Your task to perform on an android device: What's the weather going to be this weekend? Image 0: 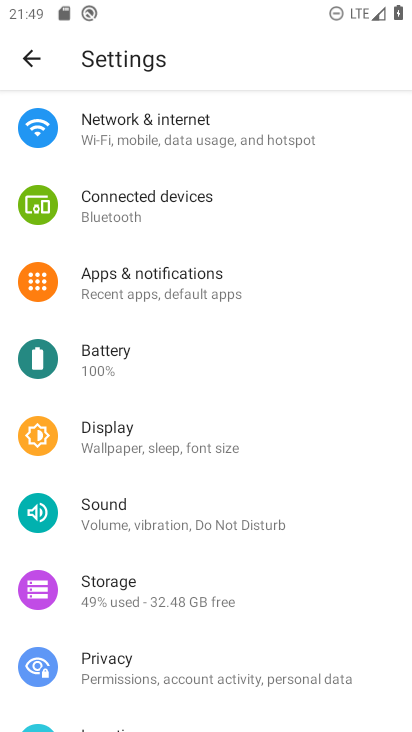
Step 0: press back button
Your task to perform on an android device: What's the weather going to be this weekend? Image 1: 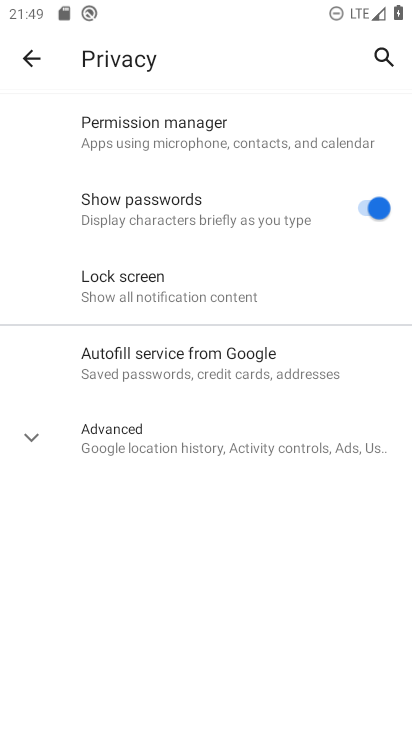
Step 1: press back button
Your task to perform on an android device: What's the weather going to be this weekend? Image 2: 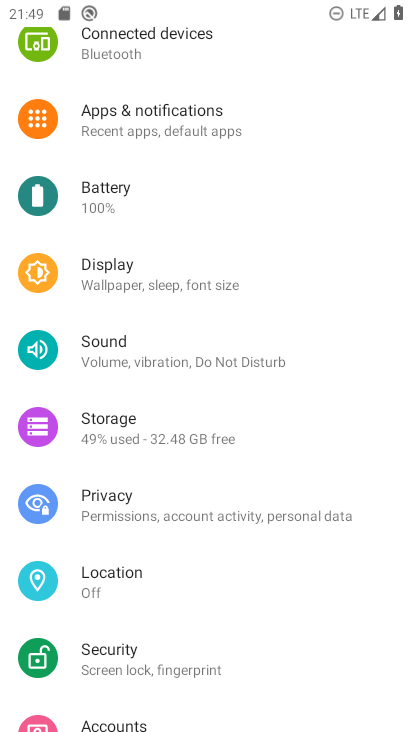
Step 2: press back button
Your task to perform on an android device: What's the weather going to be this weekend? Image 3: 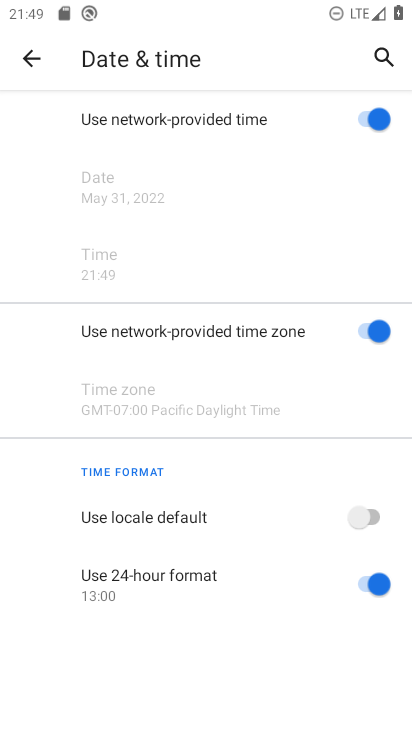
Step 3: press back button
Your task to perform on an android device: What's the weather going to be this weekend? Image 4: 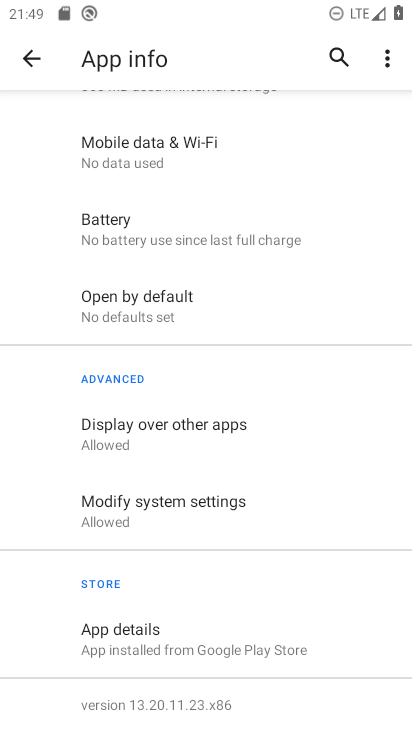
Step 4: press home button
Your task to perform on an android device: What's the weather going to be this weekend? Image 5: 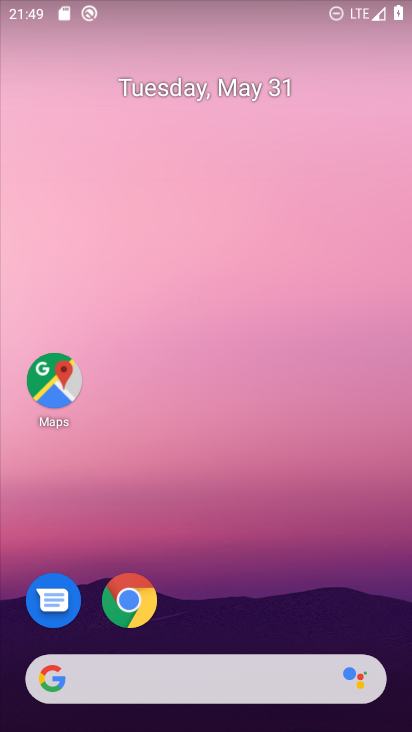
Step 5: click (132, 667)
Your task to perform on an android device: What's the weather going to be this weekend? Image 6: 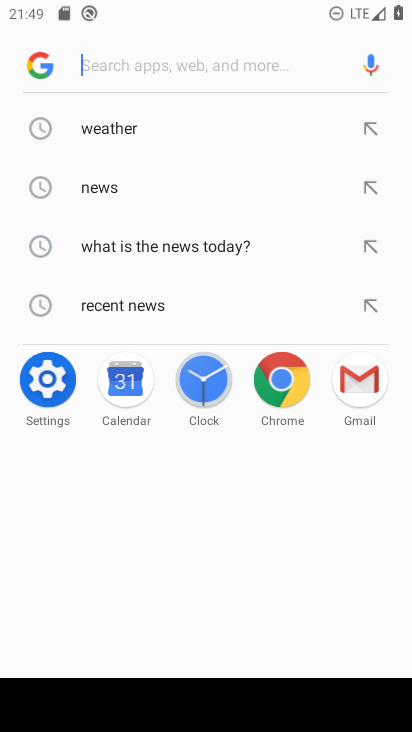
Step 6: click (119, 127)
Your task to perform on an android device: What's the weather going to be this weekend? Image 7: 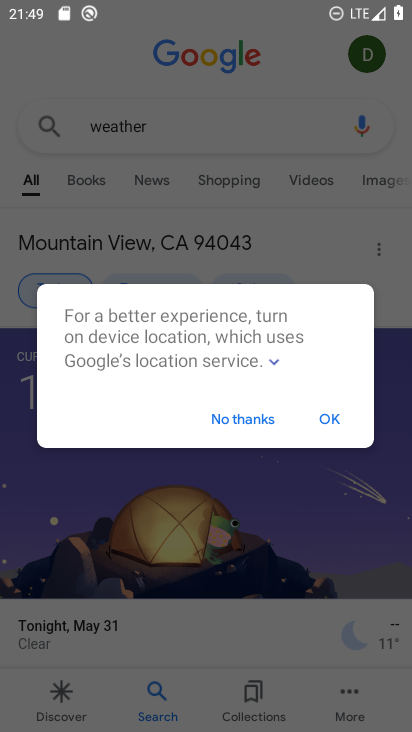
Step 7: click (208, 417)
Your task to perform on an android device: What's the weather going to be this weekend? Image 8: 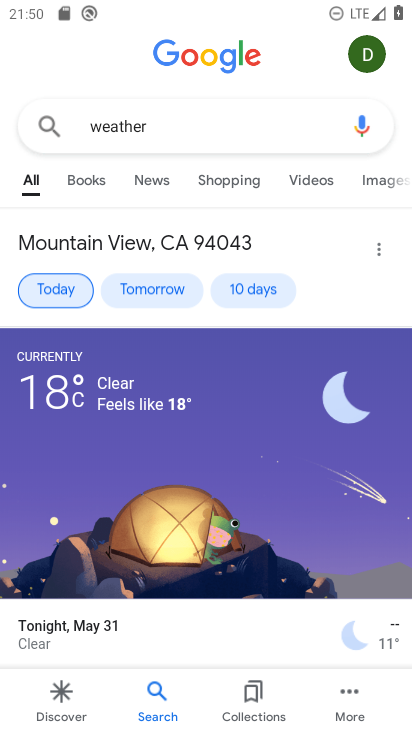
Step 8: click (247, 285)
Your task to perform on an android device: What's the weather going to be this weekend? Image 9: 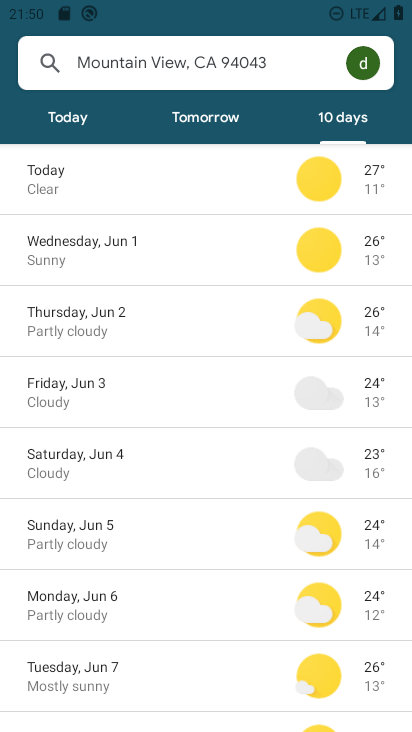
Step 9: task complete